Your task to perform on an android device: Open maps Image 0: 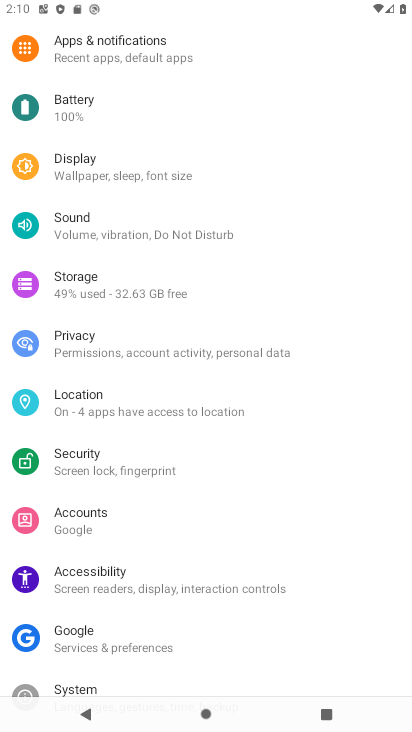
Step 0: press home button
Your task to perform on an android device: Open maps Image 1: 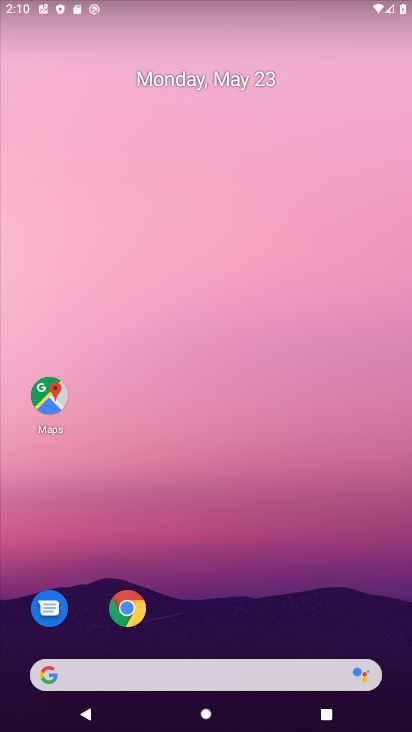
Step 1: click (34, 385)
Your task to perform on an android device: Open maps Image 2: 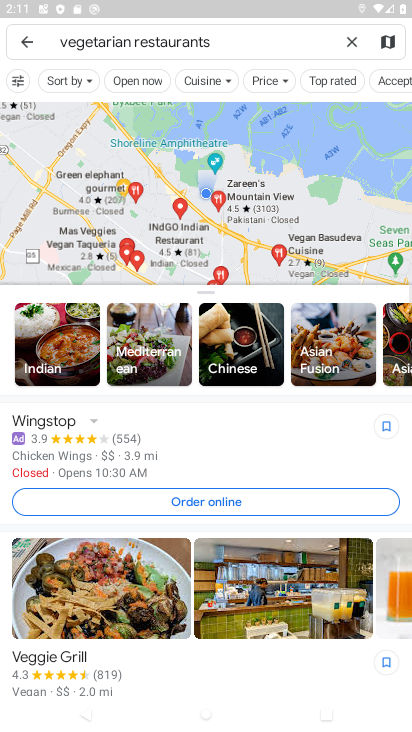
Step 2: task complete